Your task to perform on an android device: Go to Amazon Image 0: 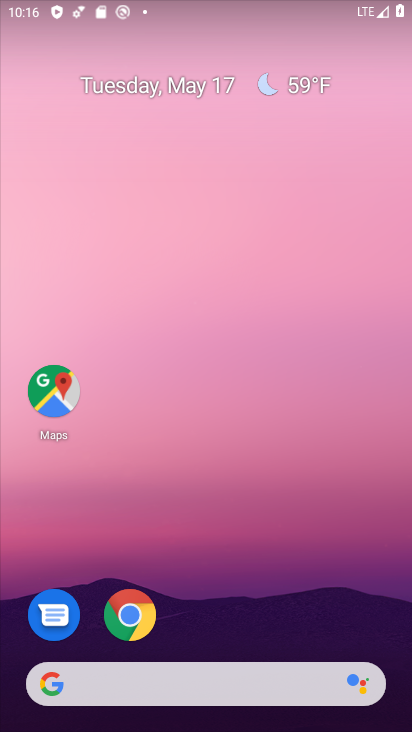
Step 0: click (140, 614)
Your task to perform on an android device: Go to Amazon Image 1: 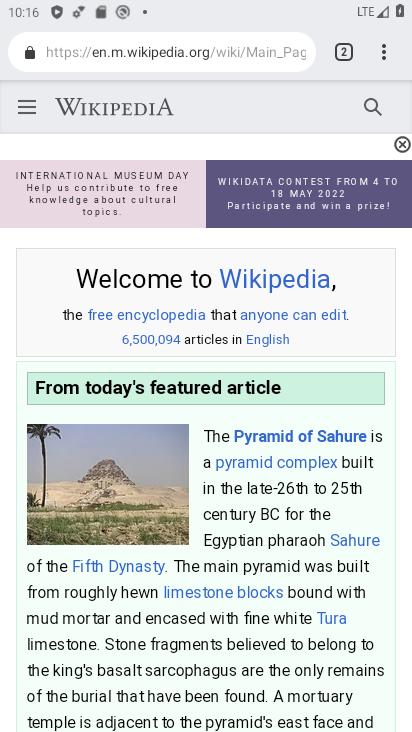
Step 1: drag from (383, 60) to (318, 107)
Your task to perform on an android device: Go to Amazon Image 2: 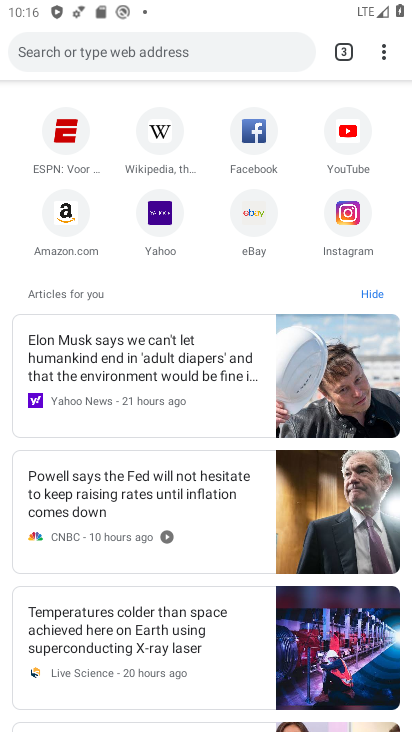
Step 2: click (68, 218)
Your task to perform on an android device: Go to Amazon Image 3: 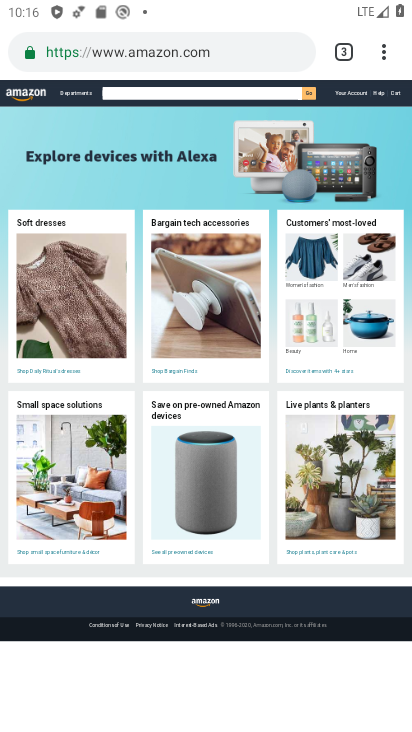
Step 3: task complete